Your task to perform on an android device: turn notification dots on Image 0: 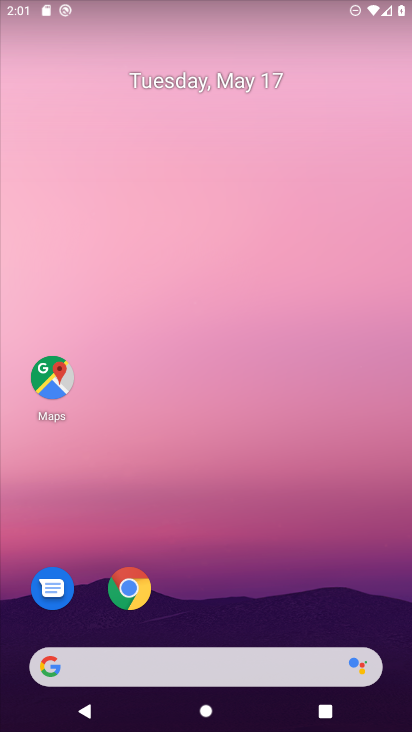
Step 0: drag from (191, 576) to (180, 373)
Your task to perform on an android device: turn notification dots on Image 1: 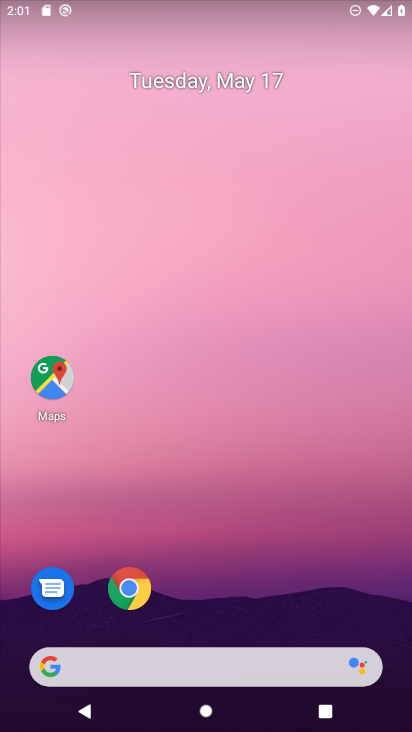
Step 1: click (107, 163)
Your task to perform on an android device: turn notification dots on Image 2: 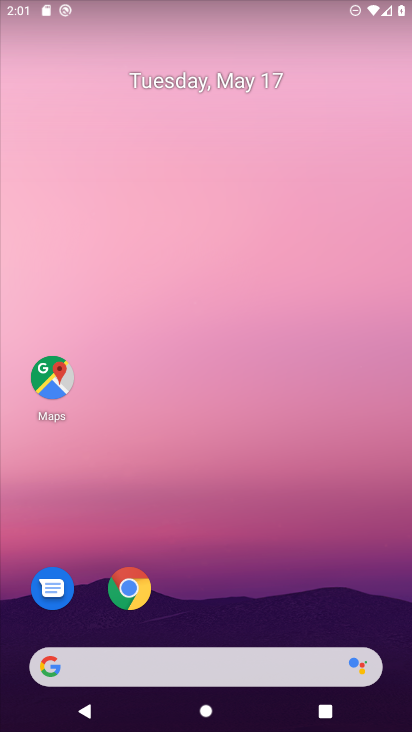
Step 2: drag from (292, 587) to (41, 41)
Your task to perform on an android device: turn notification dots on Image 3: 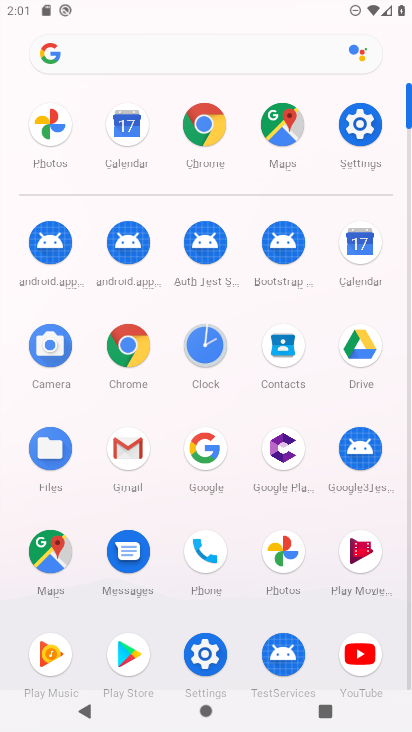
Step 3: click (355, 110)
Your task to perform on an android device: turn notification dots on Image 4: 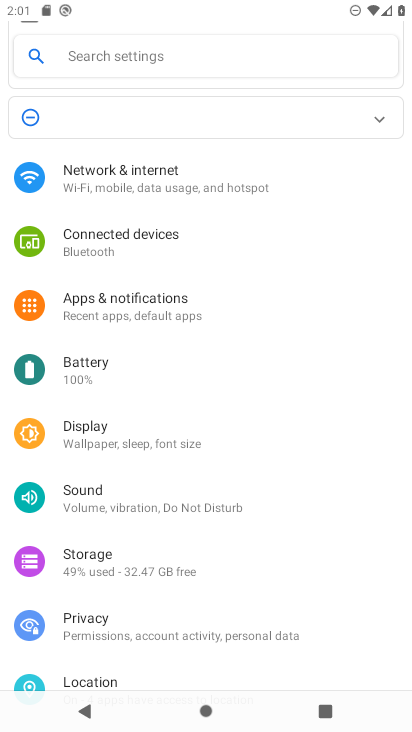
Step 4: click (135, 300)
Your task to perform on an android device: turn notification dots on Image 5: 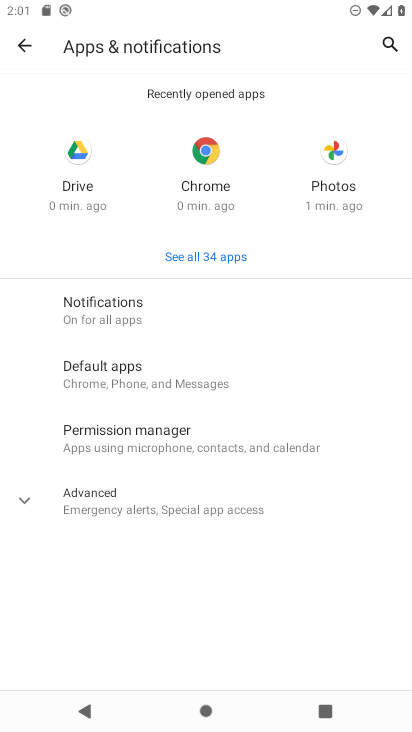
Step 5: click (135, 300)
Your task to perform on an android device: turn notification dots on Image 6: 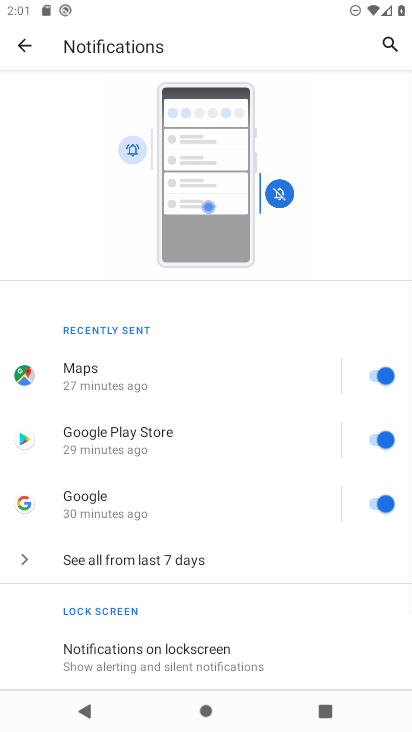
Step 6: drag from (162, 626) to (193, 269)
Your task to perform on an android device: turn notification dots on Image 7: 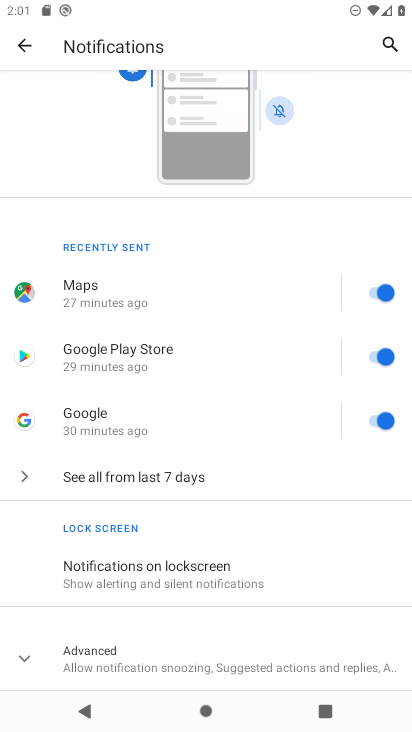
Step 7: click (177, 667)
Your task to perform on an android device: turn notification dots on Image 8: 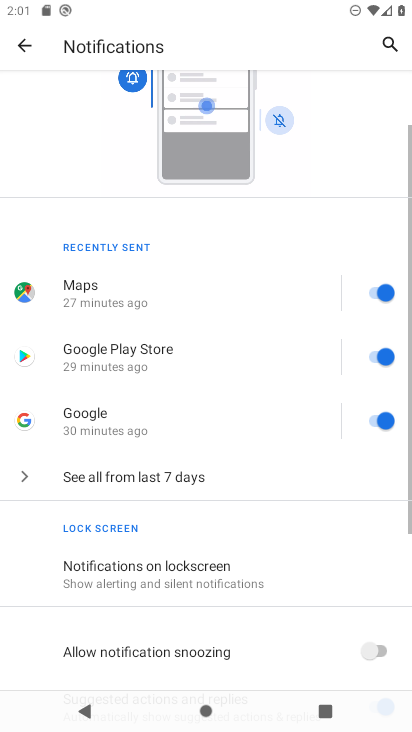
Step 8: task complete